Your task to perform on an android device: What's on my calendar today? Image 0: 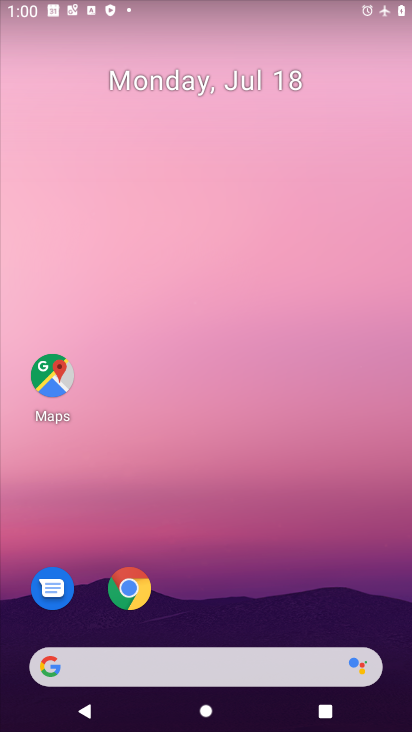
Step 0: drag from (210, 626) to (182, 273)
Your task to perform on an android device: What's on my calendar today? Image 1: 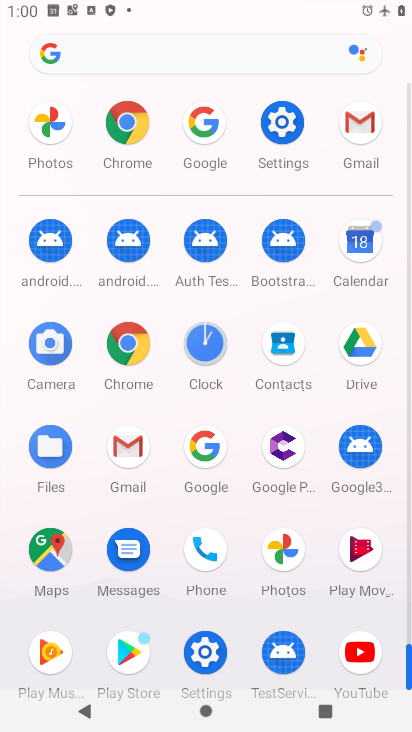
Step 1: click (155, 394)
Your task to perform on an android device: What's on my calendar today? Image 2: 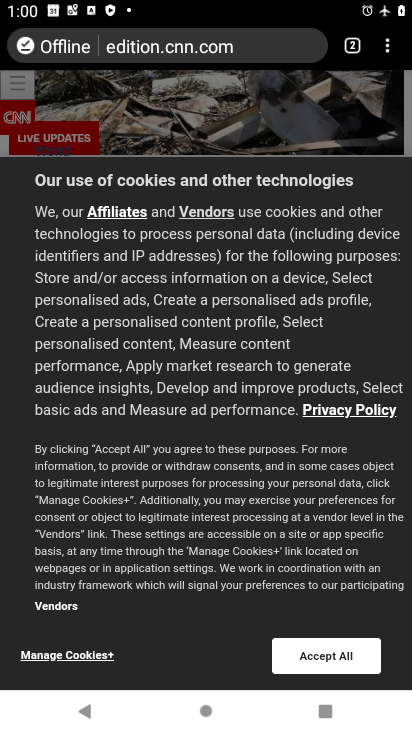
Step 2: press home button
Your task to perform on an android device: What's on my calendar today? Image 3: 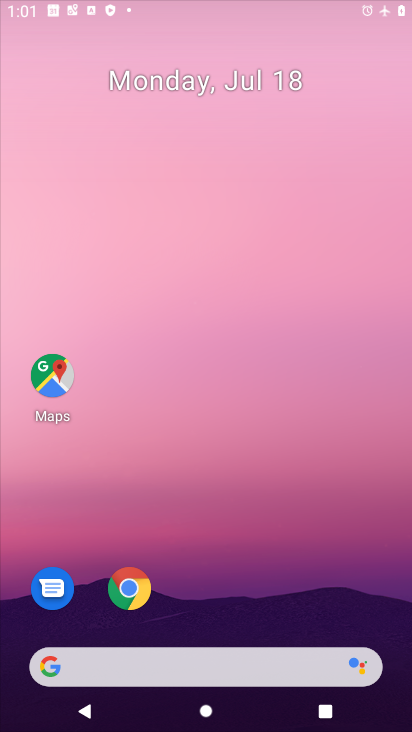
Step 3: drag from (237, 673) to (254, 297)
Your task to perform on an android device: What's on my calendar today? Image 4: 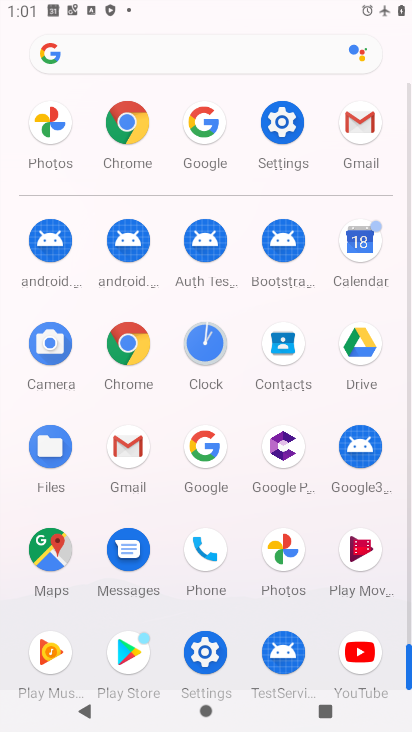
Step 4: click (355, 282)
Your task to perform on an android device: What's on my calendar today? Image 5: 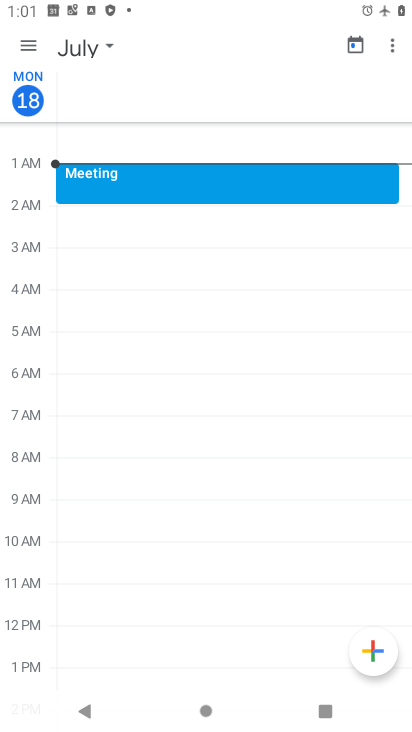
Step 5: click (90, 58)
Your task to perform on an android device: What's on my calendar today? Image 6: 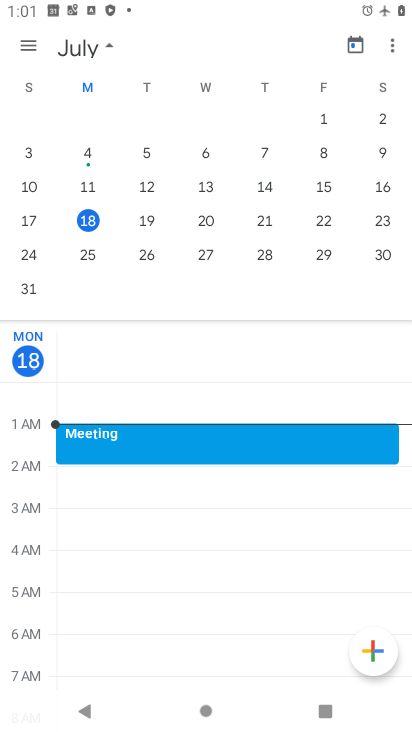
Step 6: task complete